Your task to perform on an android device: install app "Instagram" Image 0: 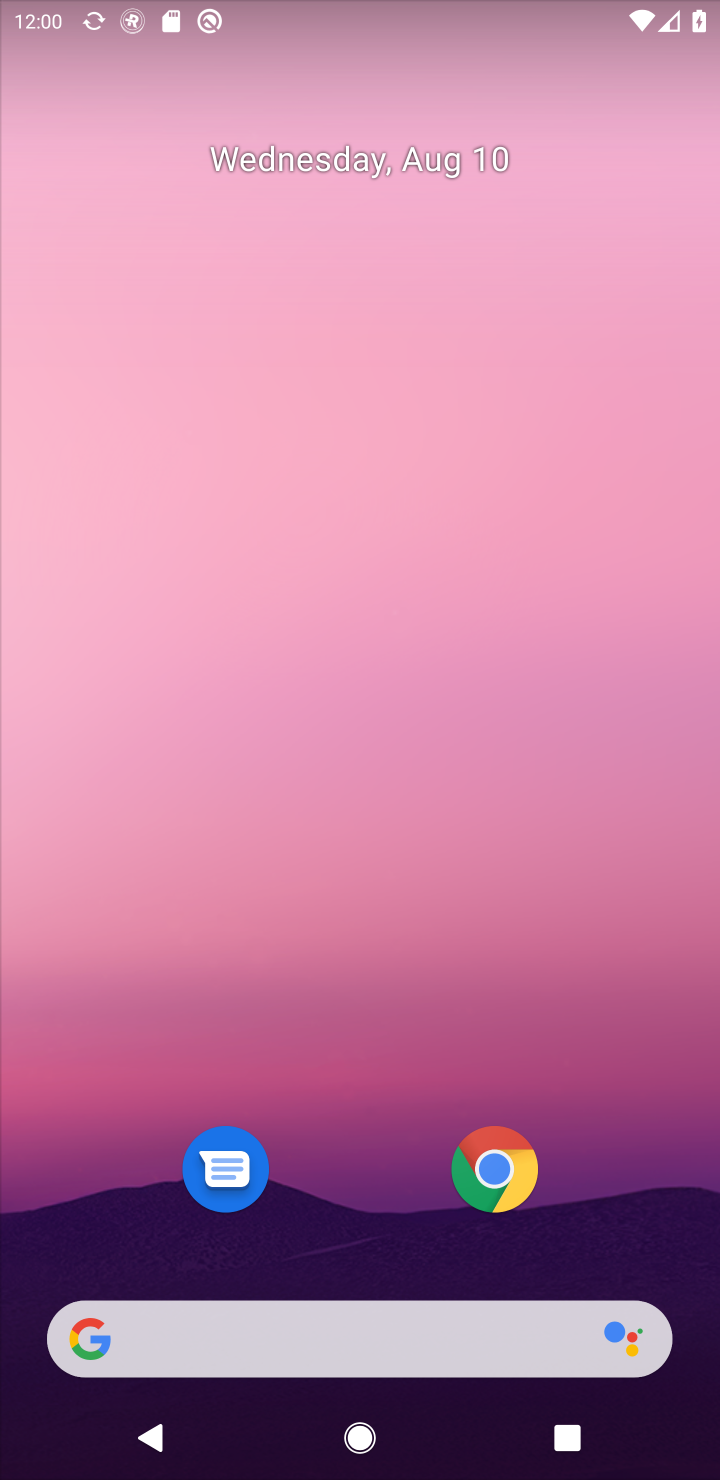
Step 0: press home button
Your task to perform on an android device: install app "Instagram" Image 1: 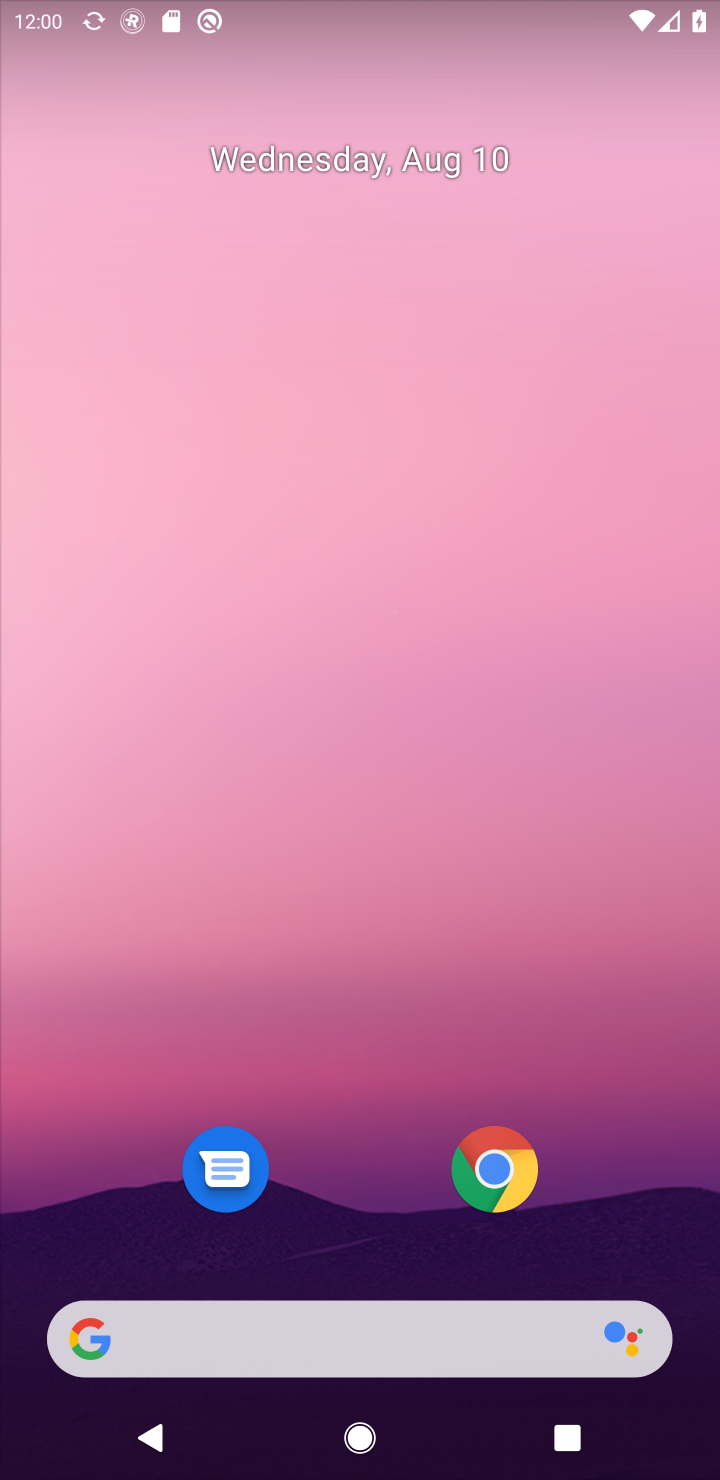
Step 1: drag from (631, 1225) to (587, 155)
Your task to perform on an android device: install app "Instagram" Image 2: 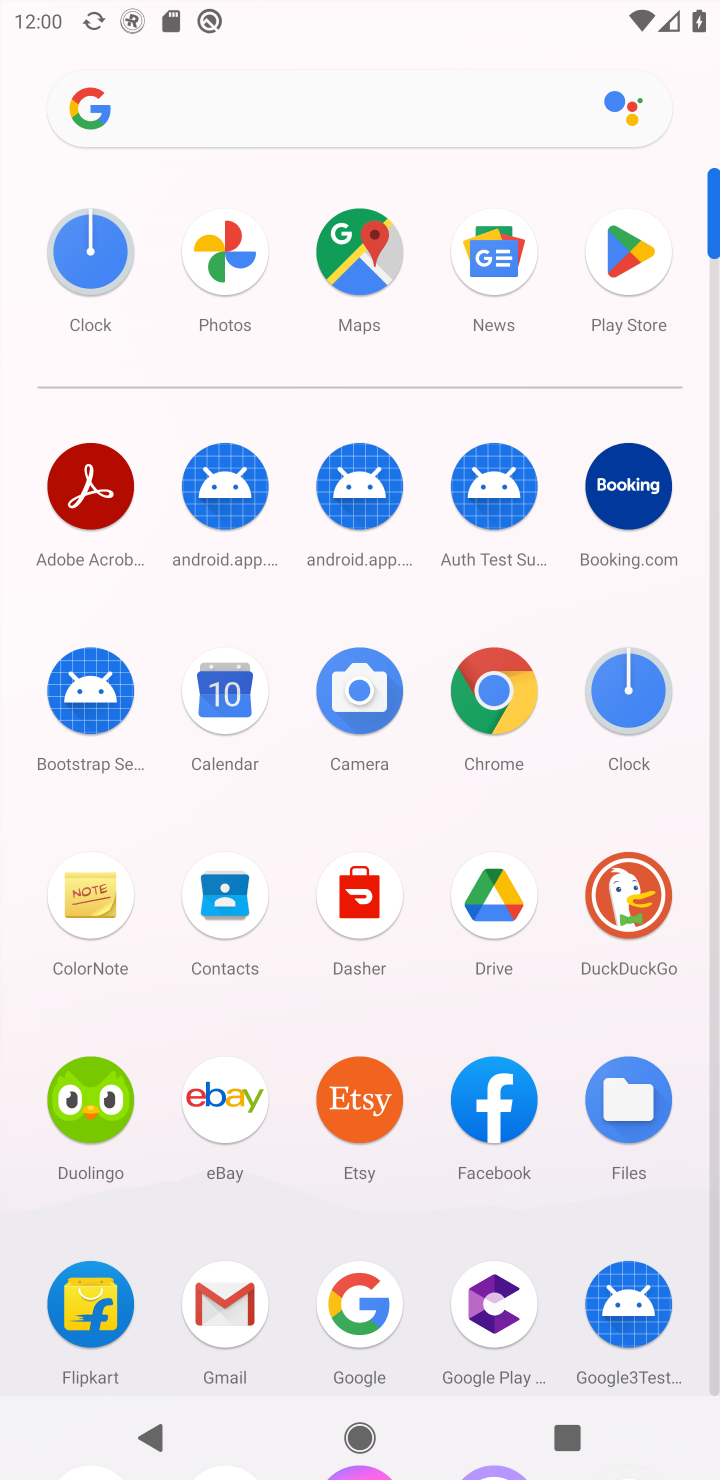
Step 2: click (611, 247)
Your task to perform on an android device: install app "Instagram" Image 3: 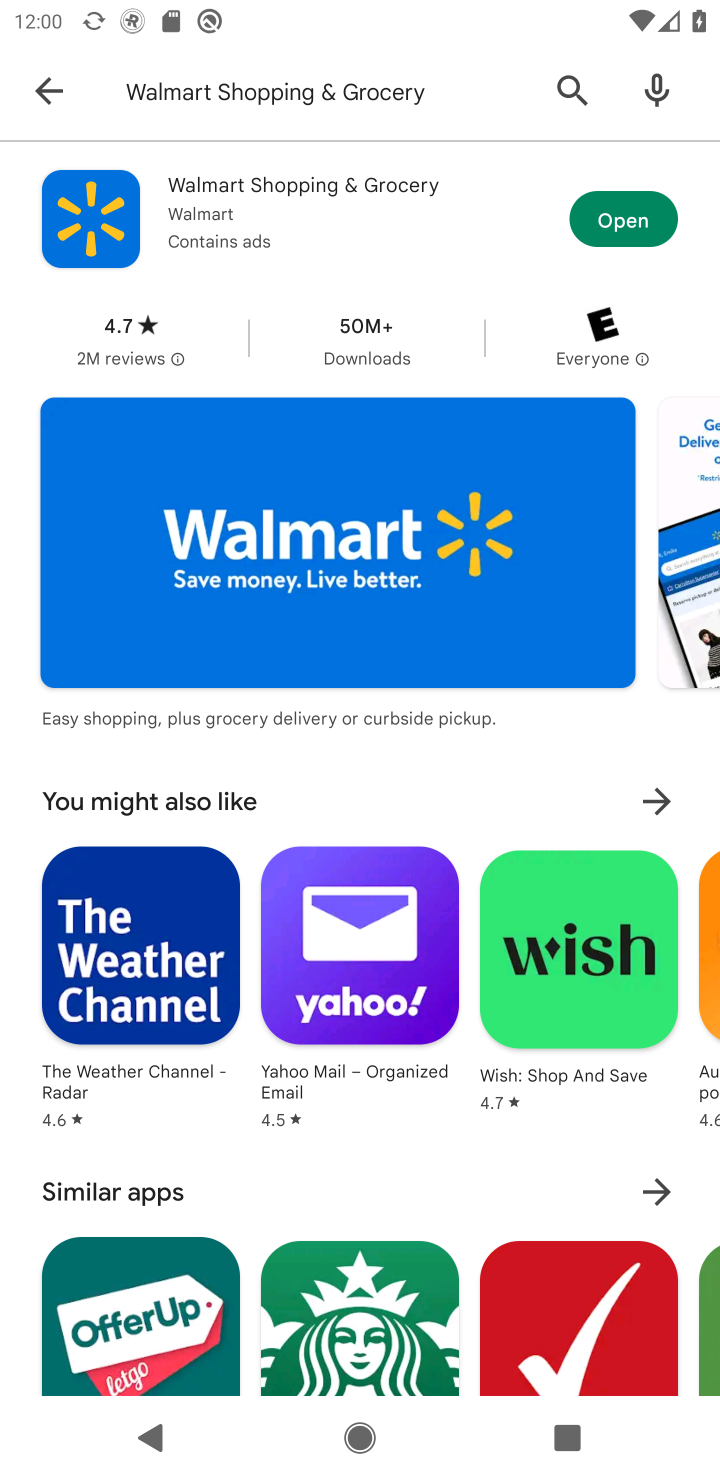
Step 3: click (575, 92)
Your task to perform on an android device: install app "Instagram" Image 4: 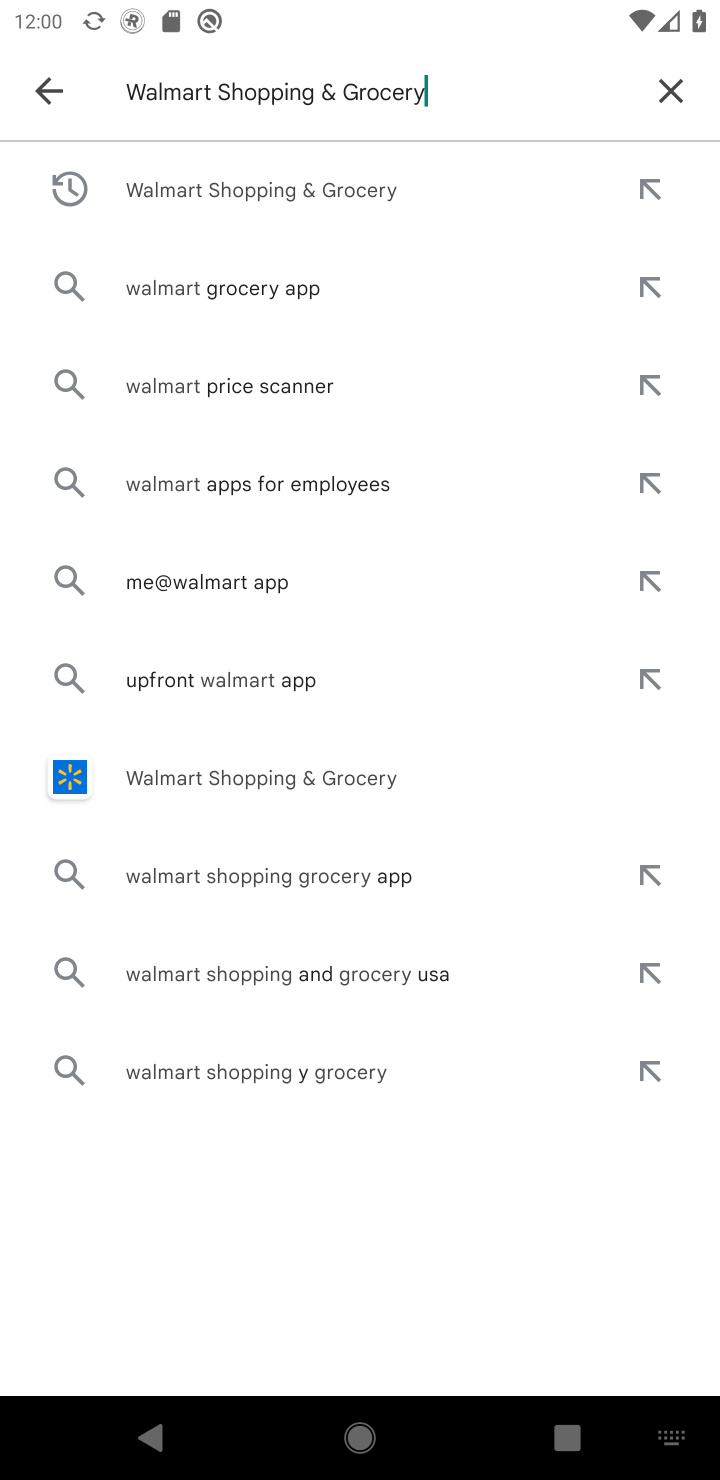
Step 4: click (679, 86)
Your task to perform on an android device: install app "Instagram" Image 5: 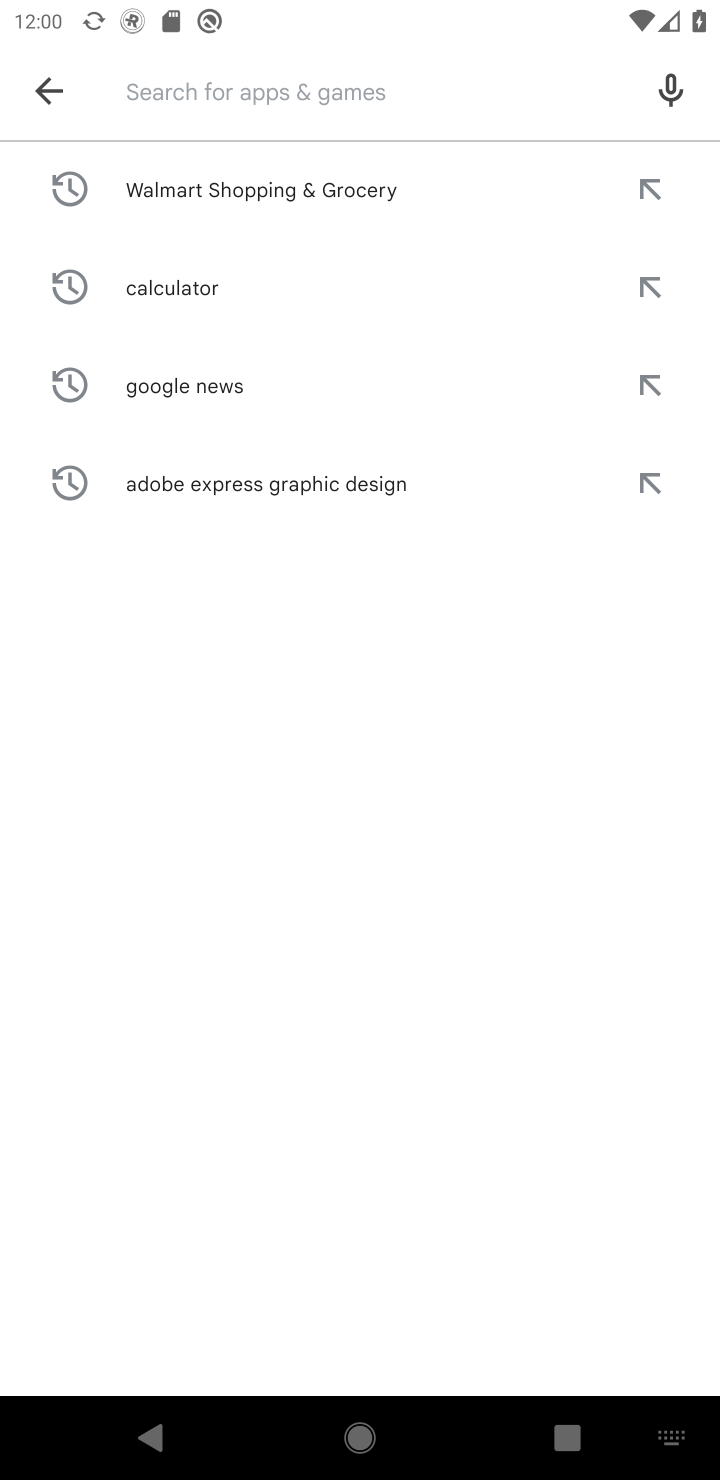
Step 5: type "instagram"
Your task to perform on an android device: install app "Instagram" Image 6: 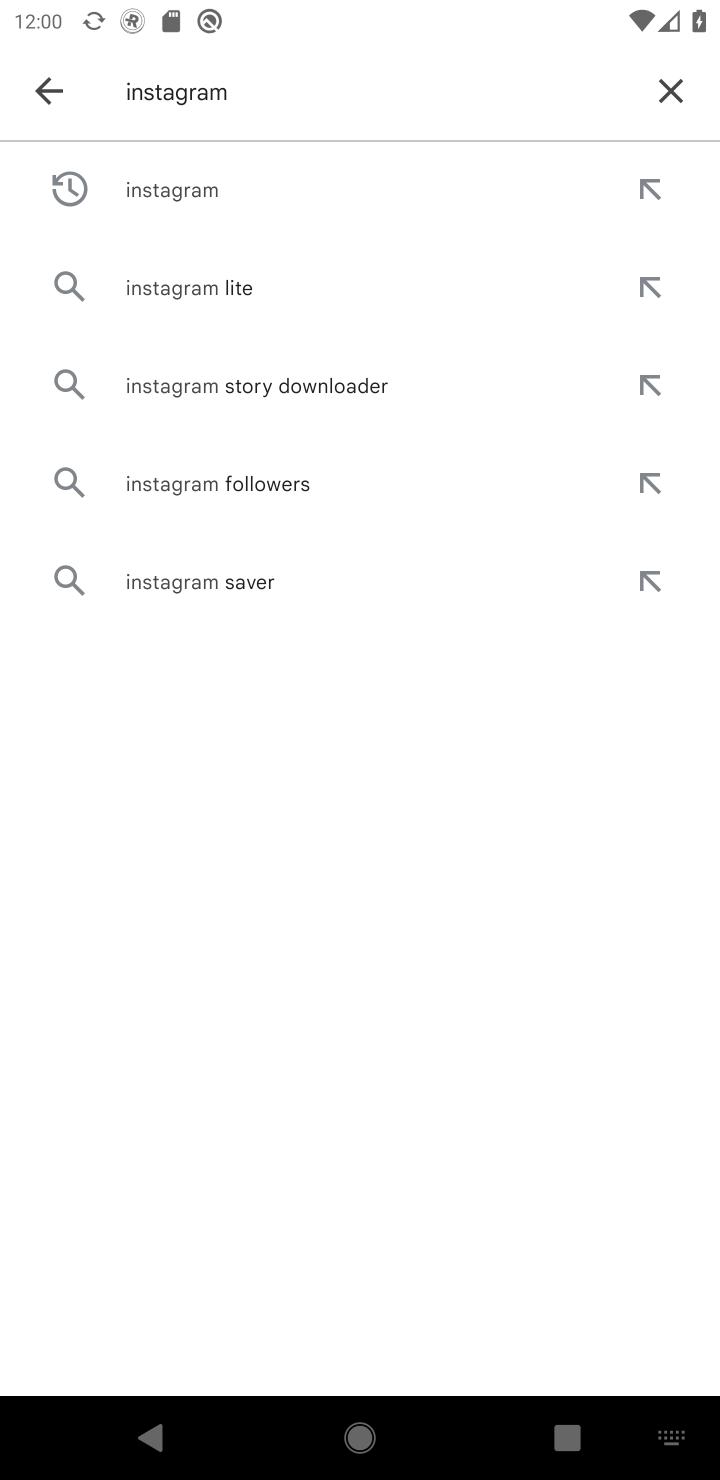
Step 6: click (243, 187)
Your task to perform on an android device: install app "Instagram" Image 7: 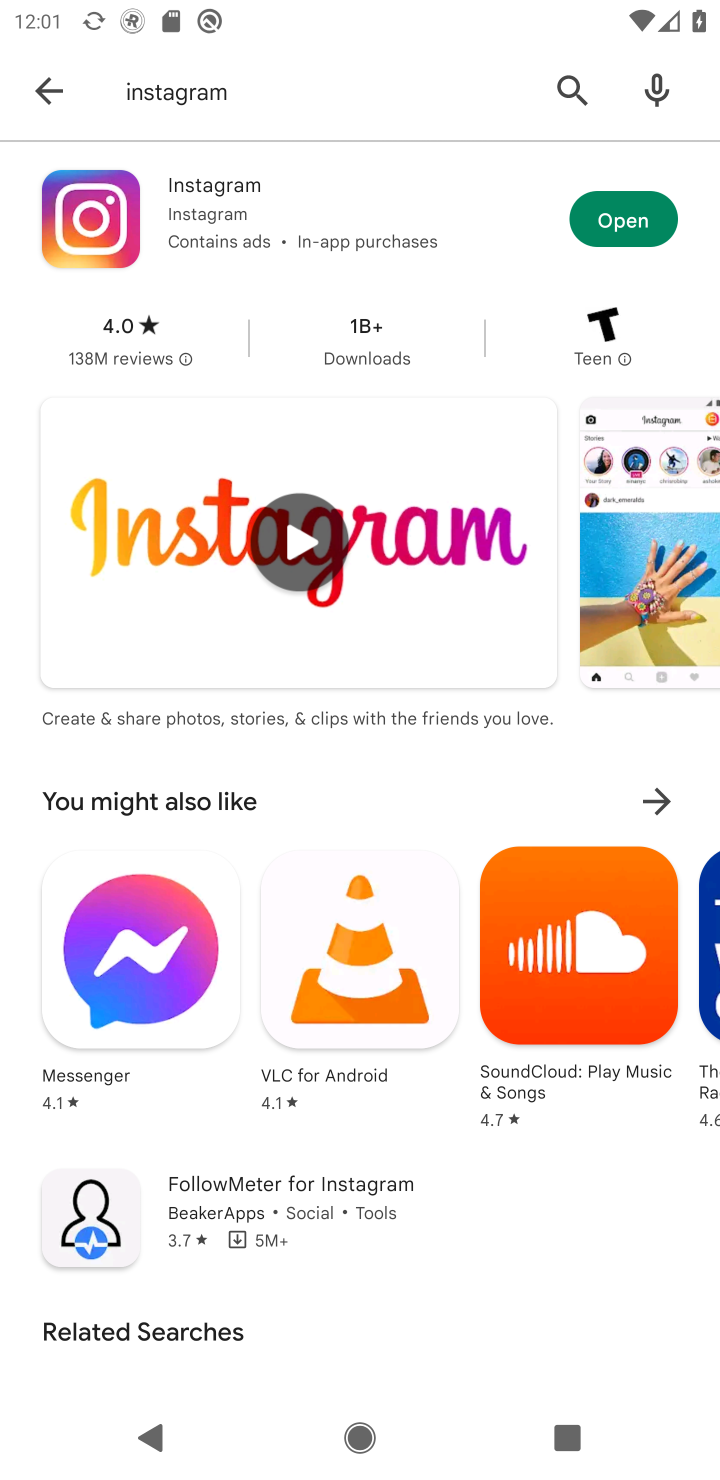
Step 7: task complete